Your task to perform on an android device: change text size in settings app Image 0: 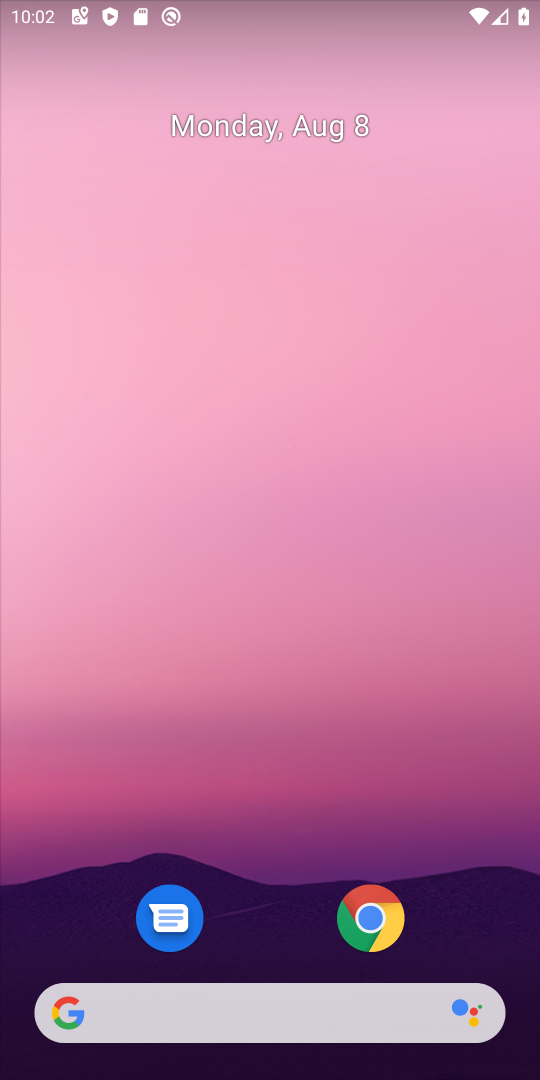
Step 0: drag from (245, 1024) to (199, 27)
Your task to perform on an android device: change text size in settings app Image 1: 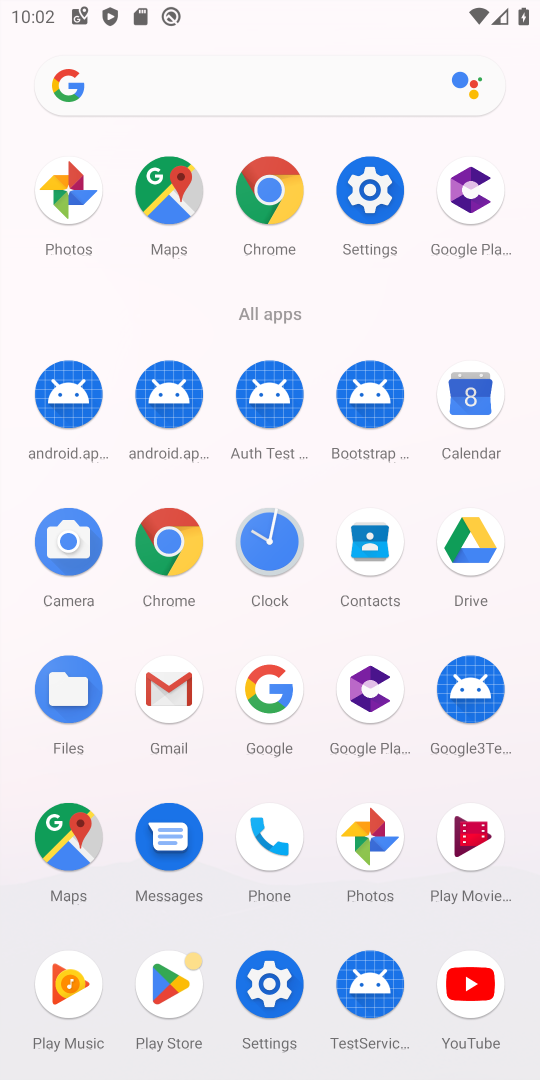
Step 1: click (275, 976)
Your task to perform on an android device: change text size in settings app Image 2: 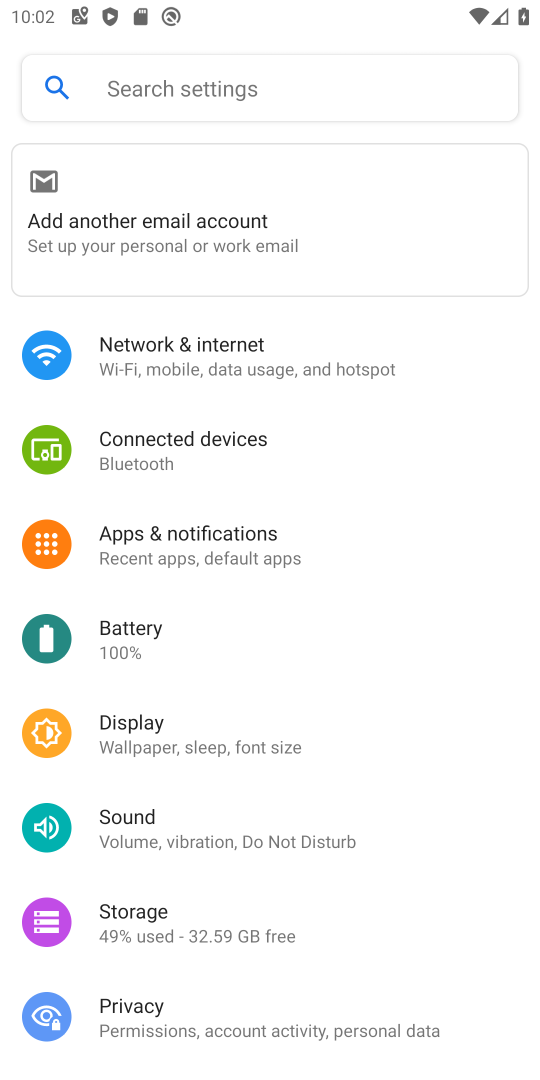
Step 2: click (136, 736)
Your task to perform on an android device: change text size in settings app Image 3: 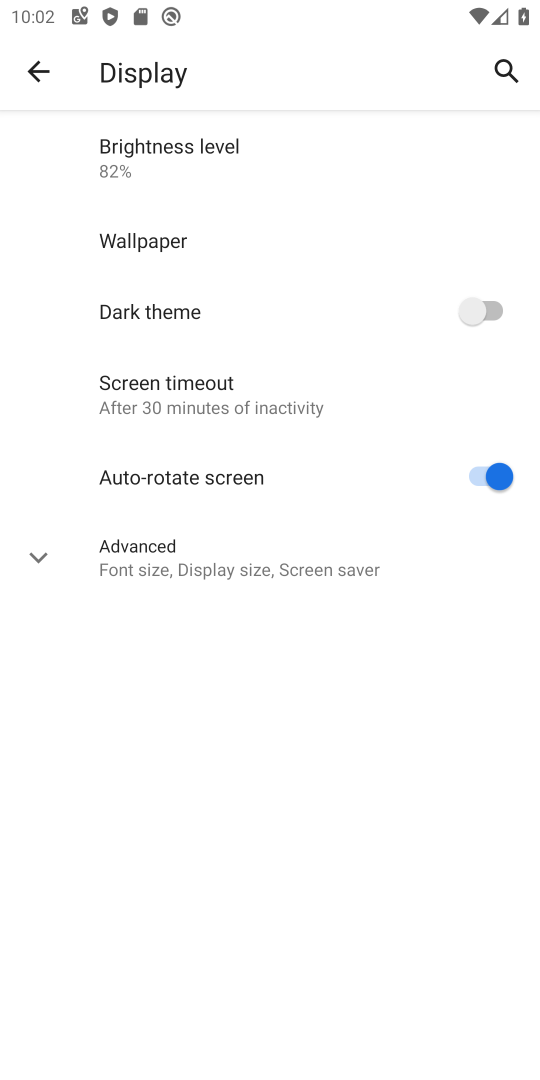
Step 3: click (110, 578)
Your task to perform on an android device: change text size in settings app Image 4: 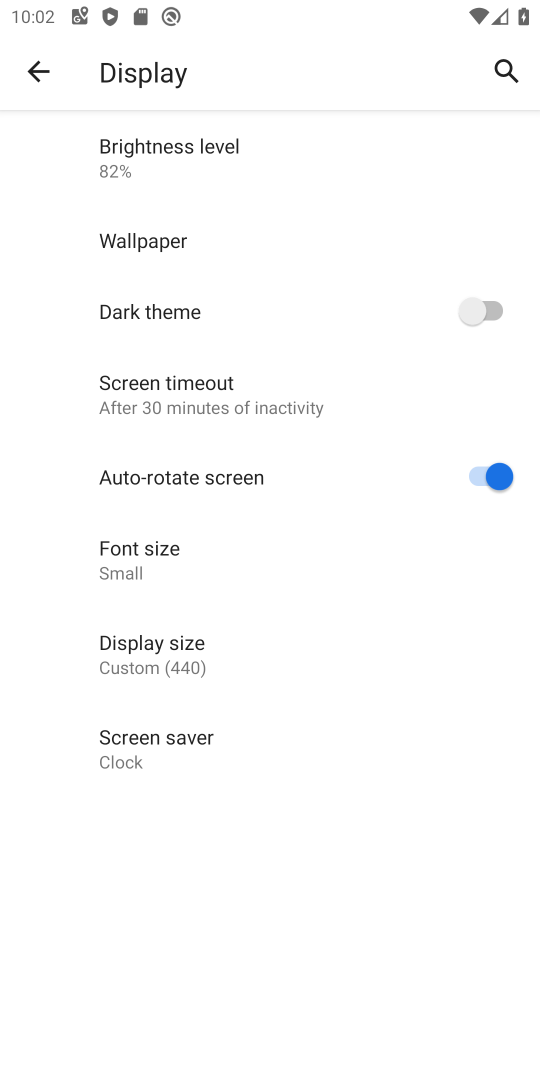
Step 4: click (135, 576)
Your task to perform on an android device: change text size in settings app Image 5: 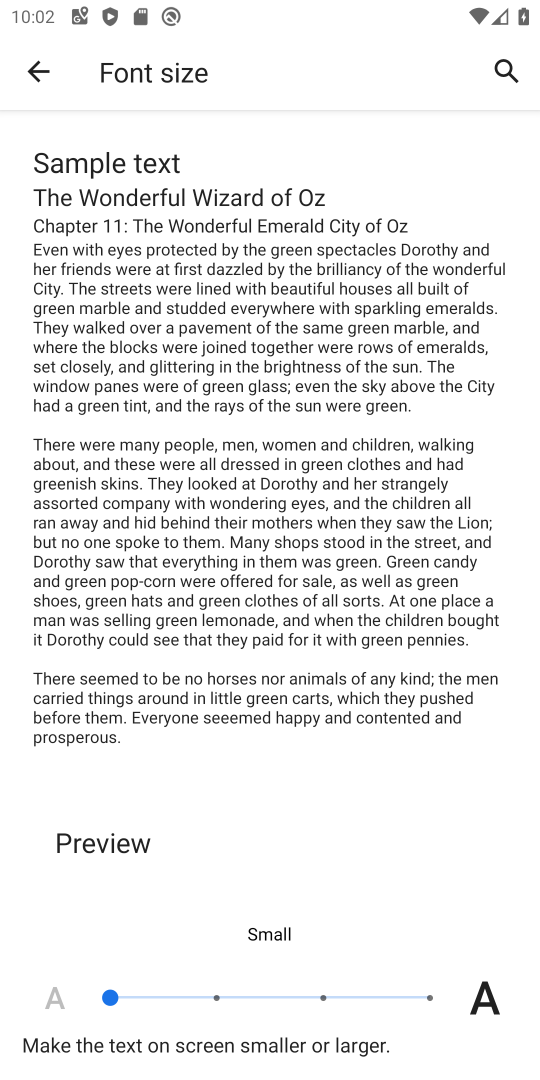
Step 5: click (212, 990)
Your task to perform on an android device: change text size in settings app Image 6: 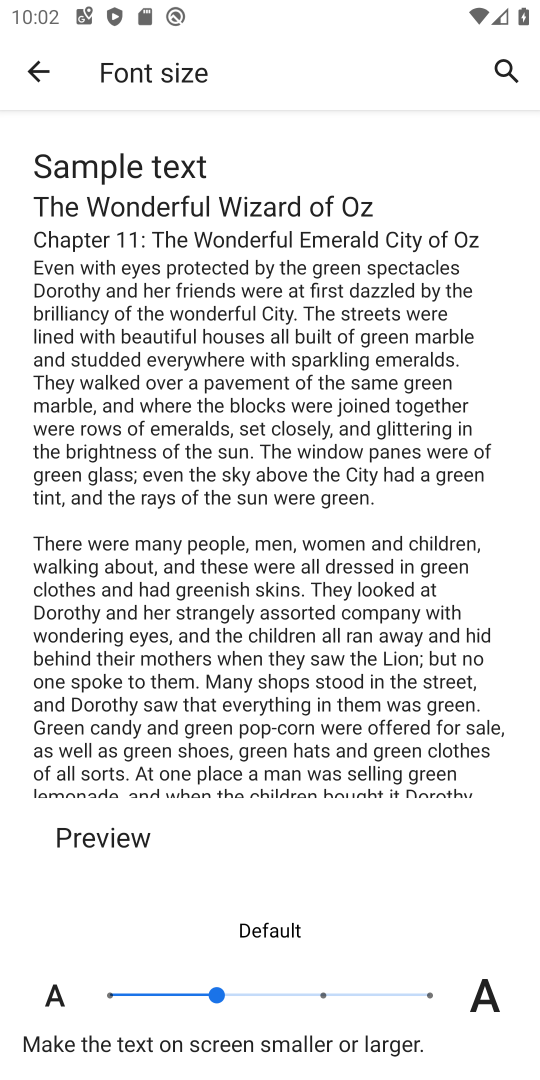
Step 6: task complete